Your task to perform on an android device: Search for the new Apple Watch on Best Buy Image 0: 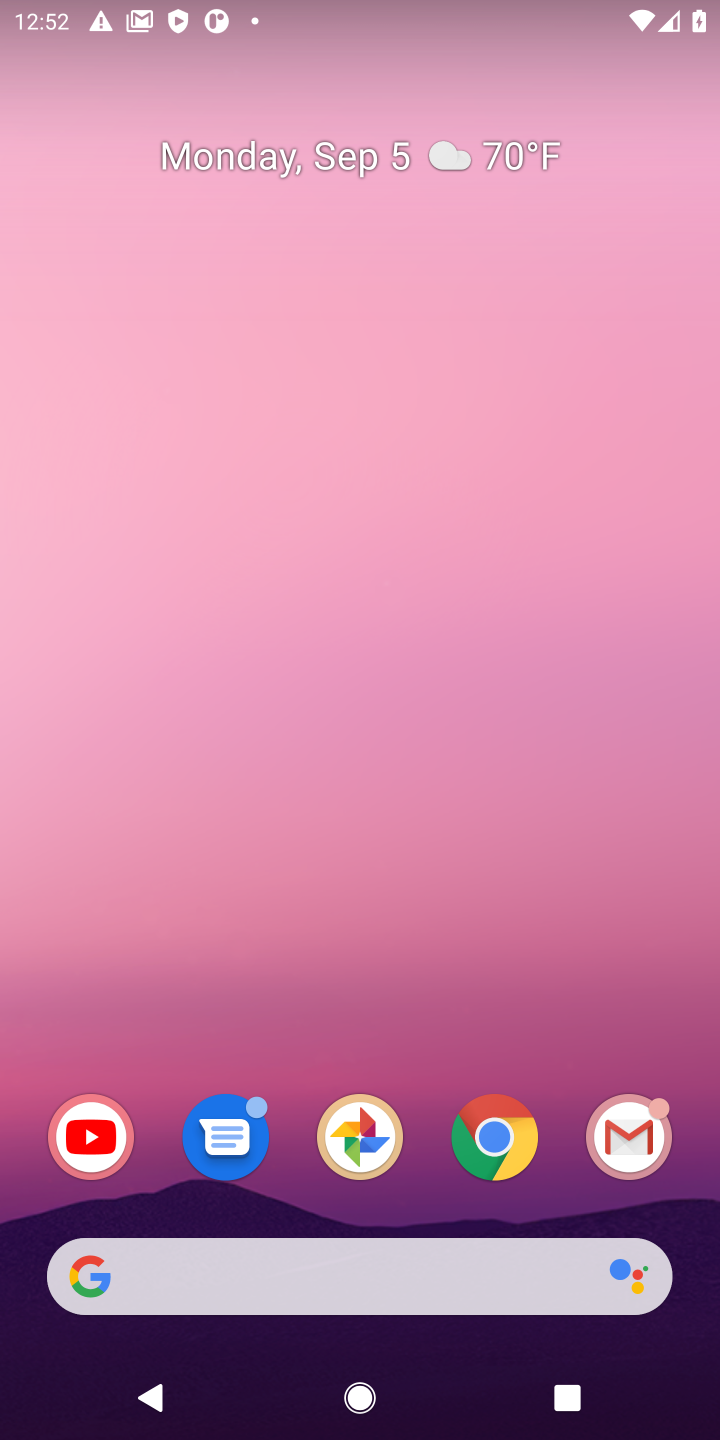
Step 0: click (468, 1164)
Your task to perform on an android device: Search for the new Apple Watch on Best Buy Image 1: 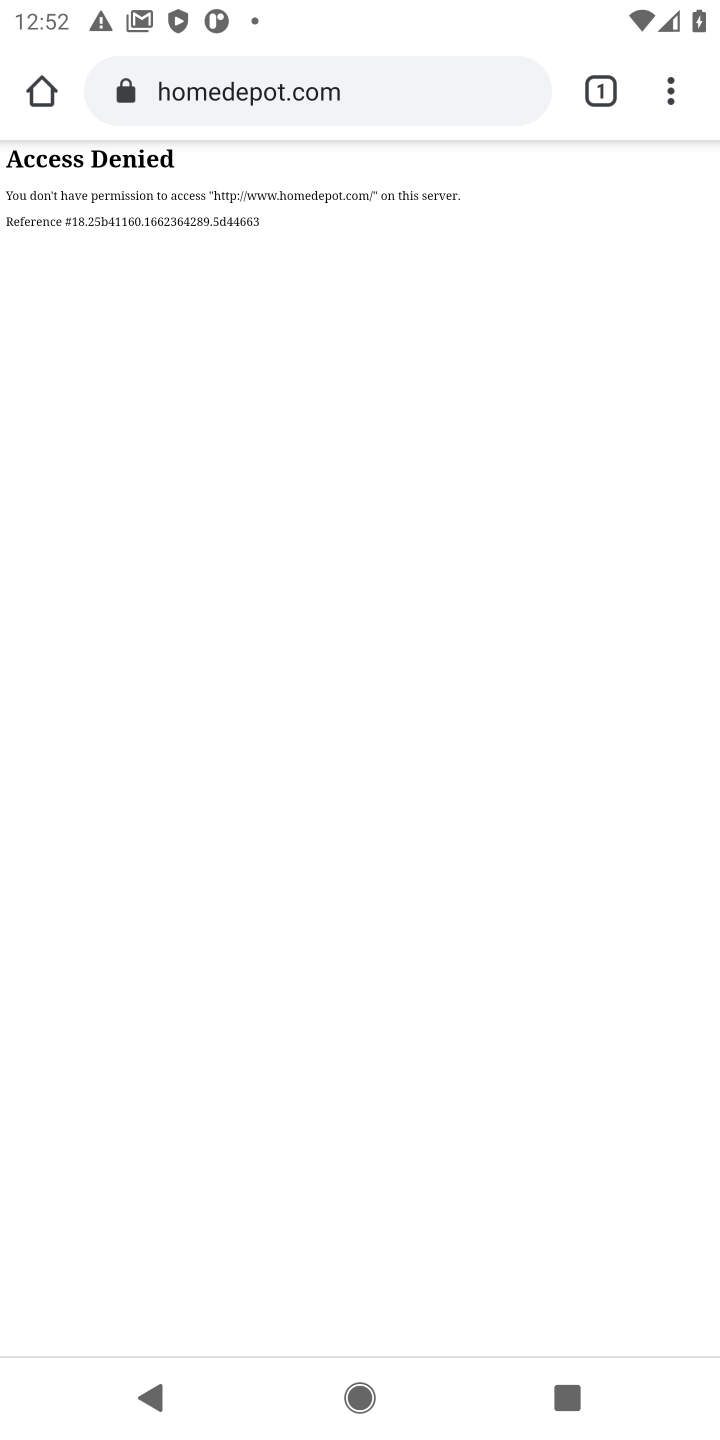
Step 1: click (311, 80)
Your task to perform on an android device: Search for the new Apple Watch on Best Buy Image 2: 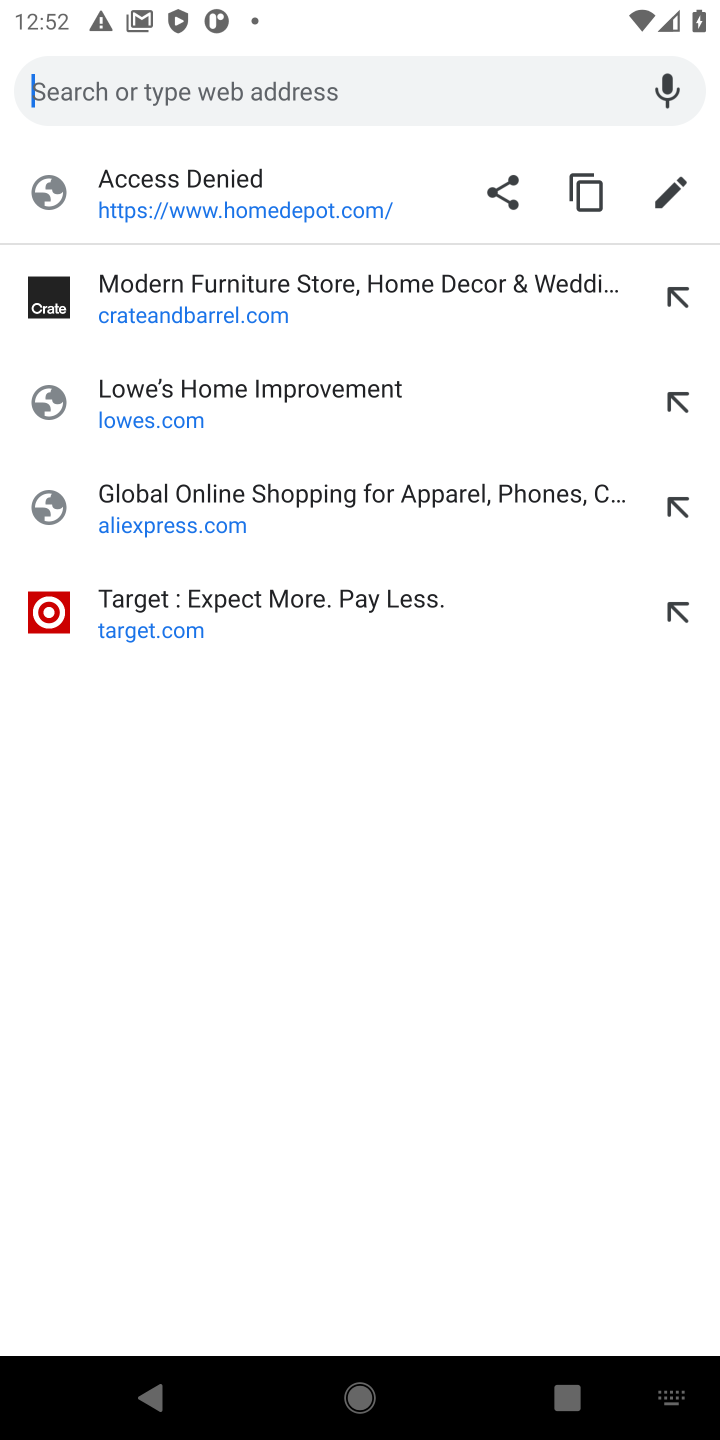
Step 2: type "best buy"
Your task to perform on an android device: Search for the new Apple Watch on Best Buy Image 3: 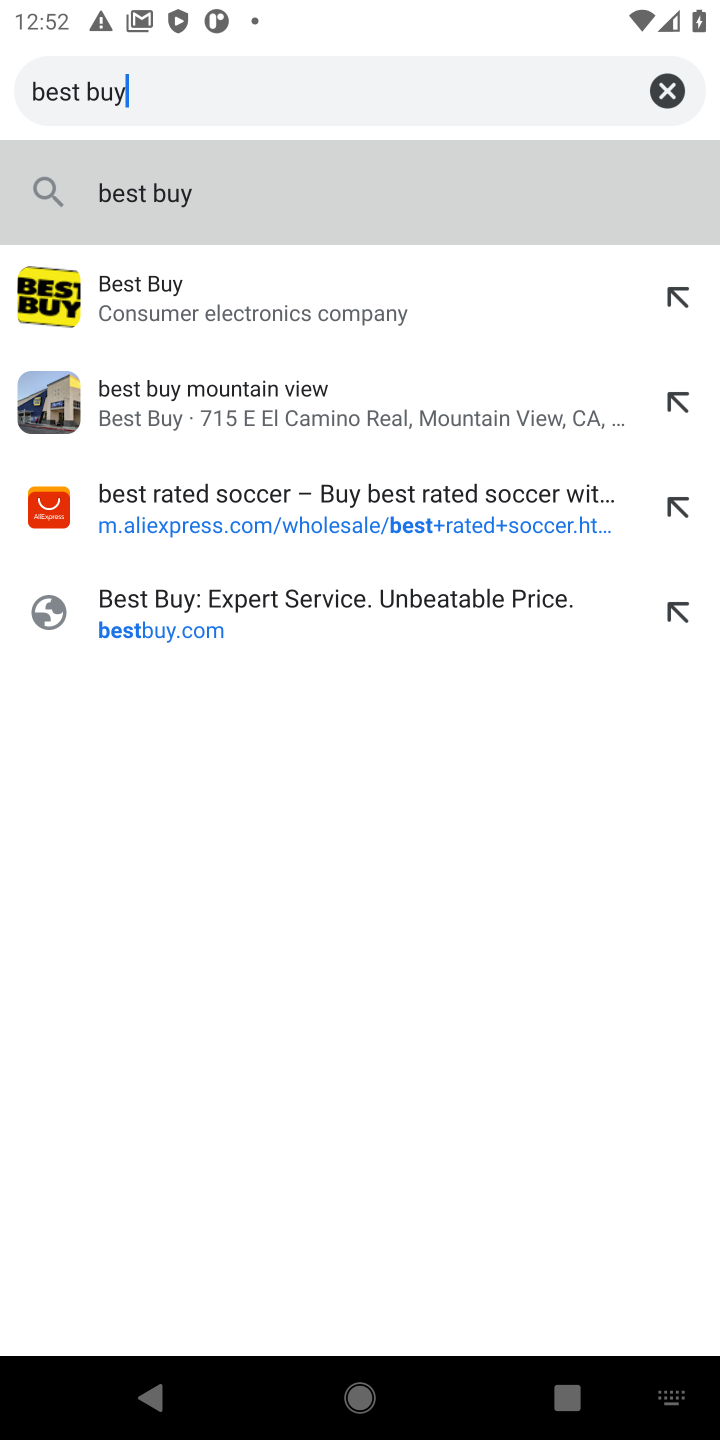
Step 3: click (377, 614)
Your task to perform on an android device: Search for the new Apple Watch on Best Buy Image 4: 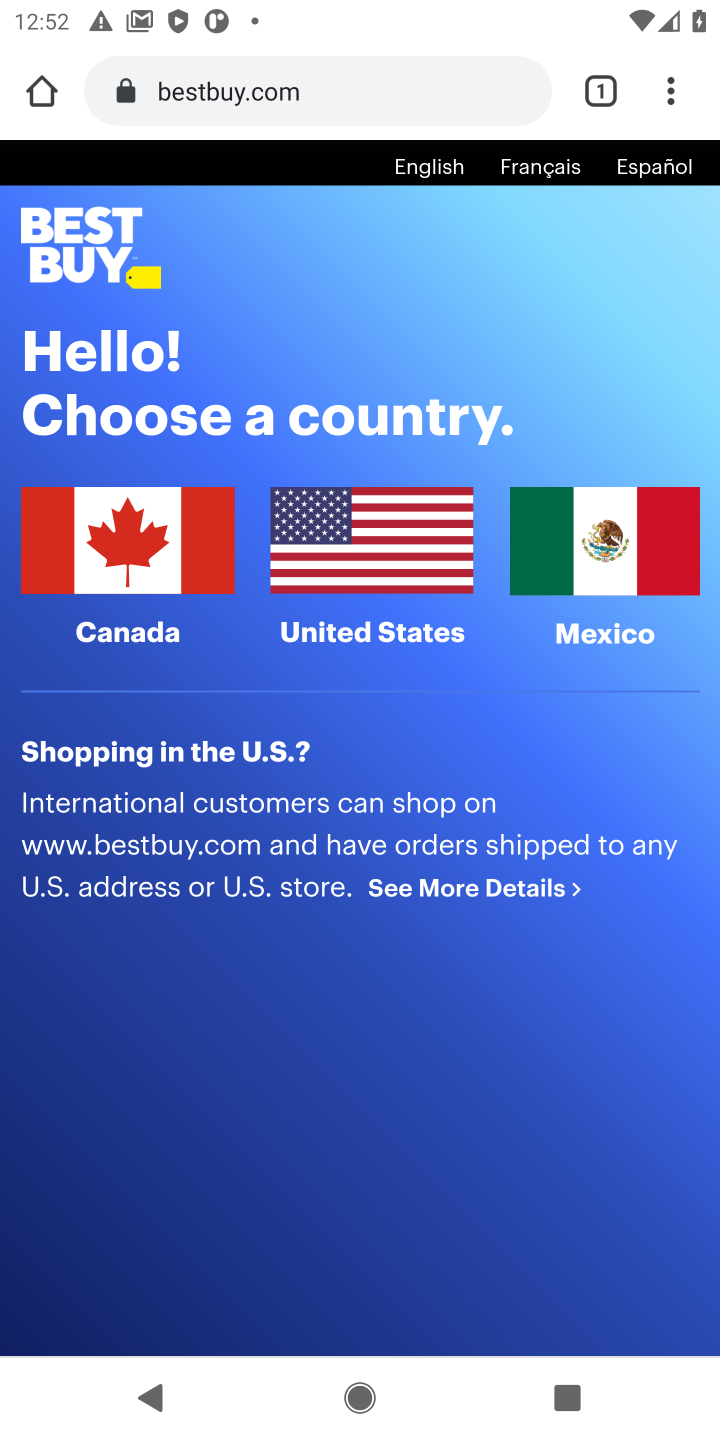
Step 4: click (319, 558)
Your task to perform on an android device: Search for the new Apple Watch on Best Buy Image 5: 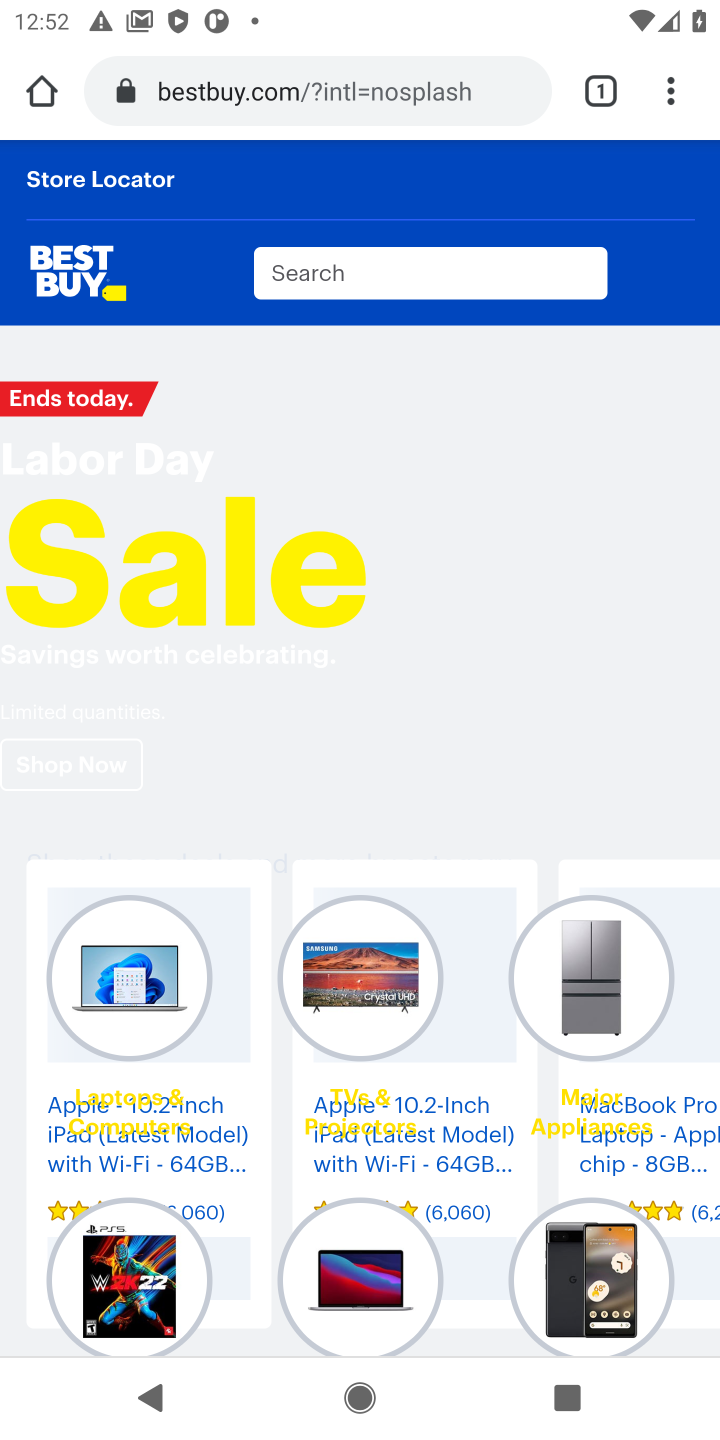
Step 5: click (436, 279)
Your task to perform on an android device: Search for the new Apple Watch on Best Buy Image 6: 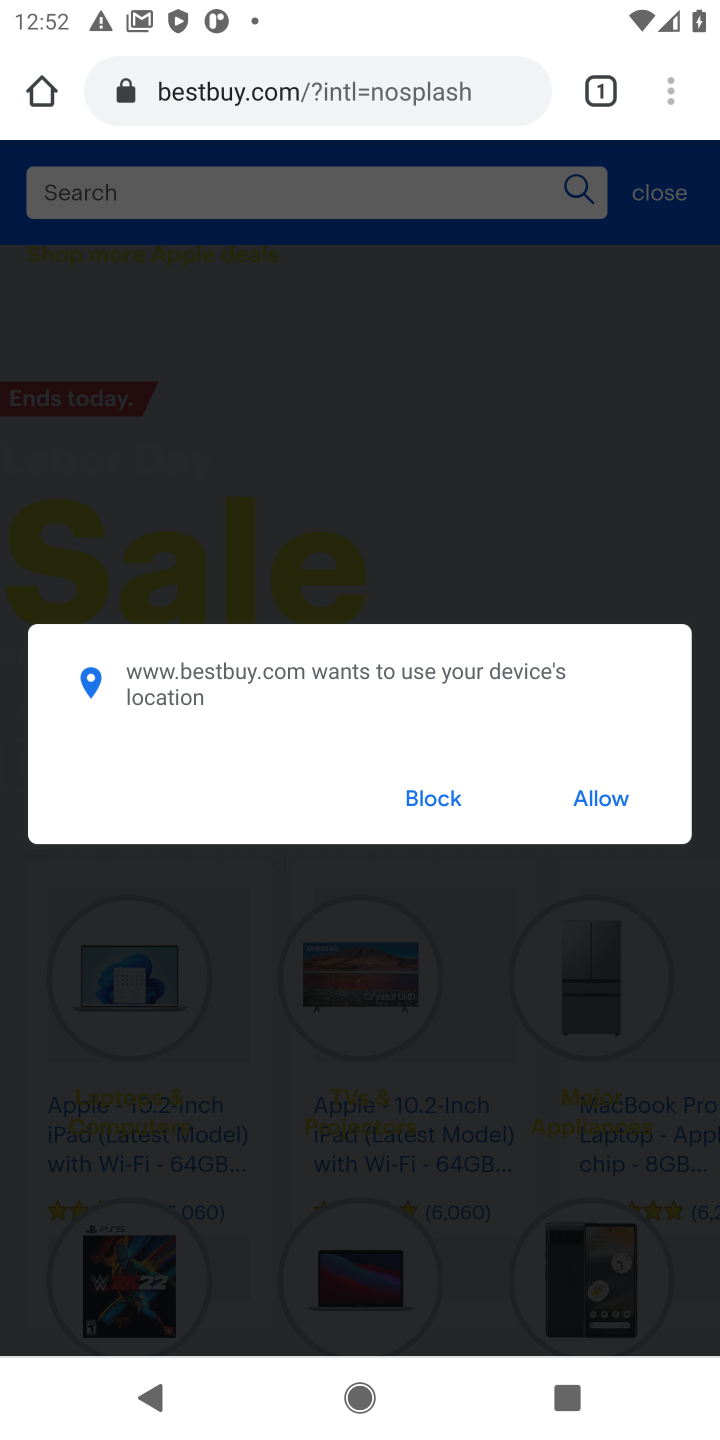
Step 6: click (616, 807)
Your task to perform on an android device: Search for the new Apple Watch on Best Buy Image 7: 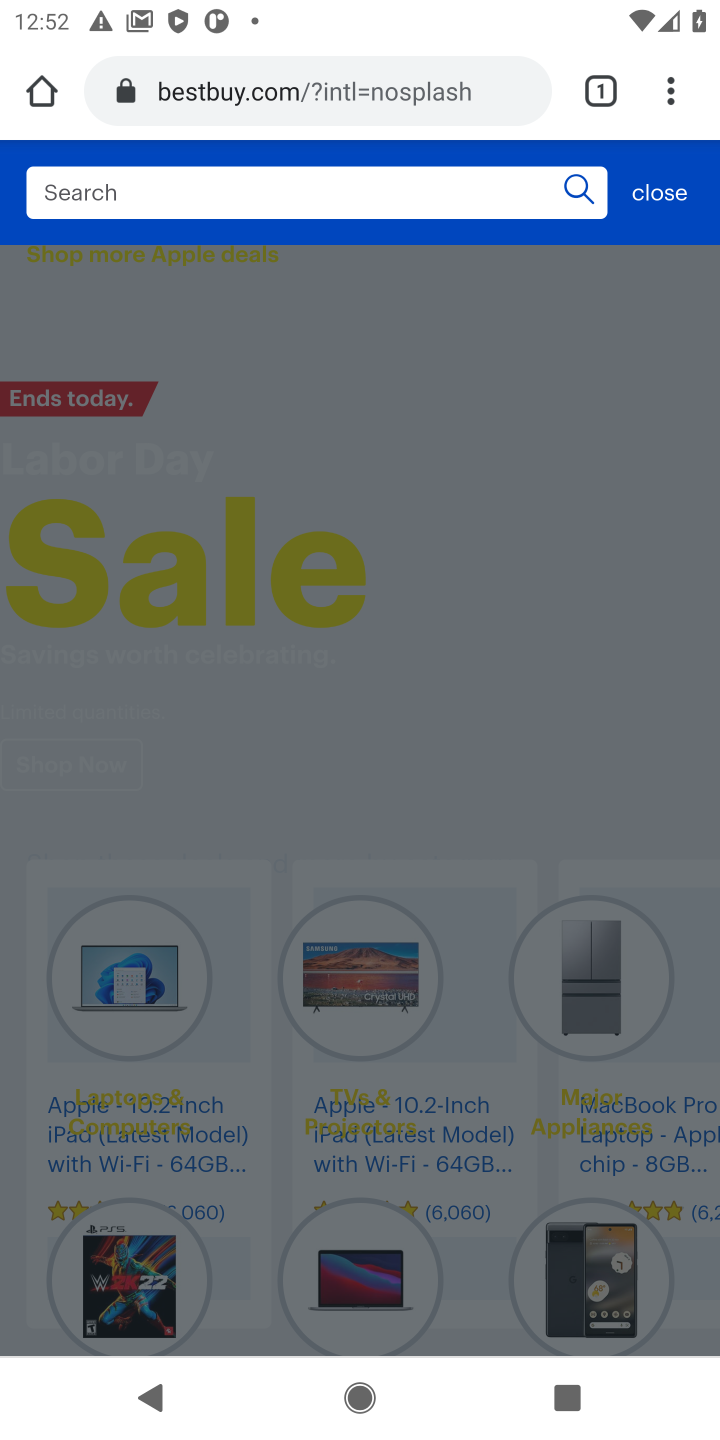
Step 7: click (250, 203)
Your task to perform on an android device: Search for the new Apple Watch on Best Buy Image 8: 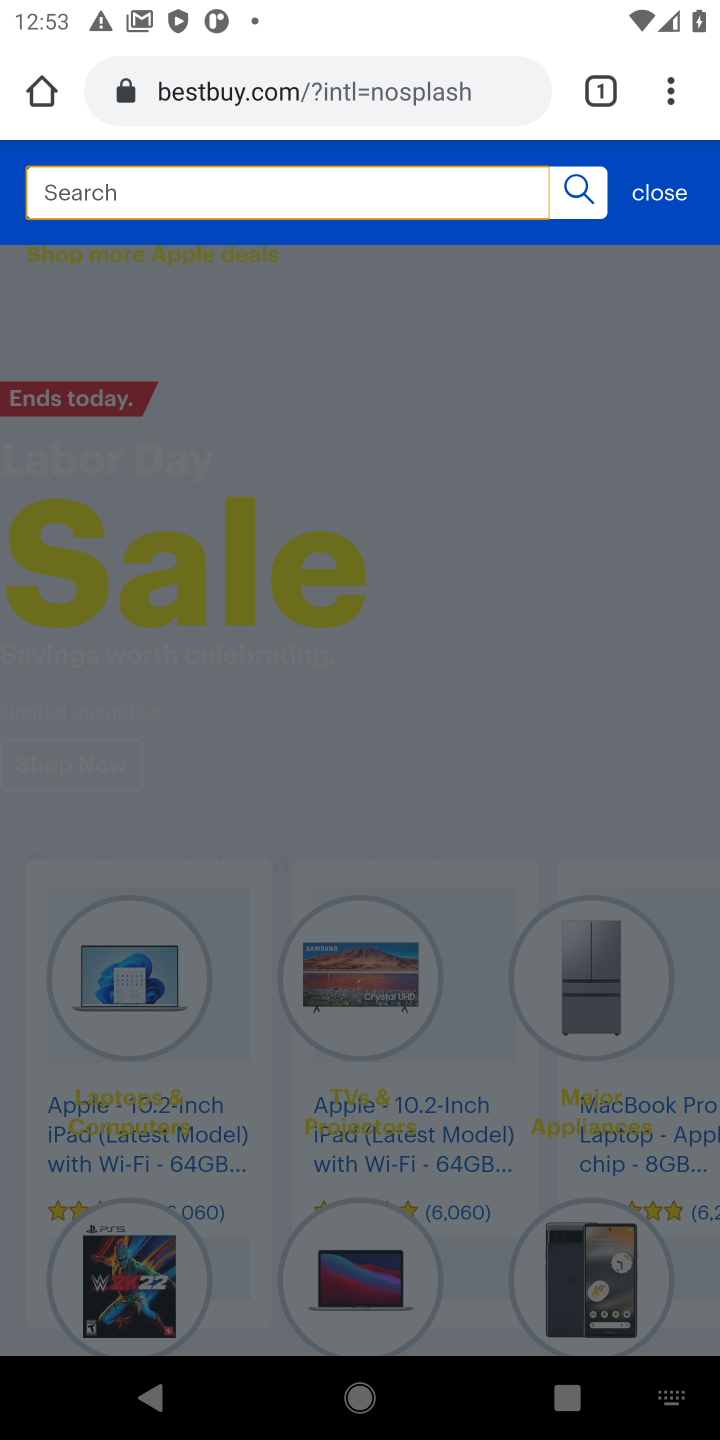
Step 8: type "apple watch\"
Your task to perform on an android device: Search for the new Apple Watch on Best Buy Image 9: 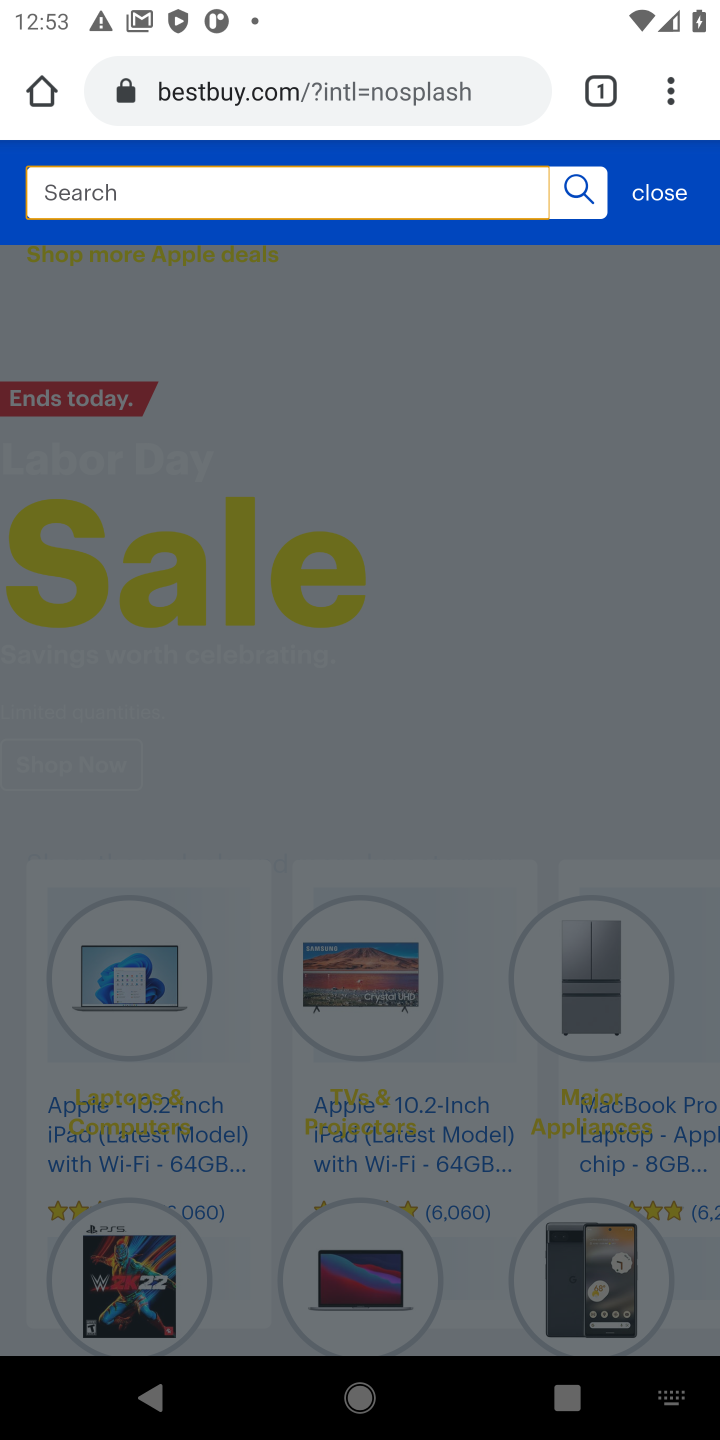
Step 9: type "apple watch"
Your task to perform on an android device: Search for the new Apple Watch on Best Buy Image 10: 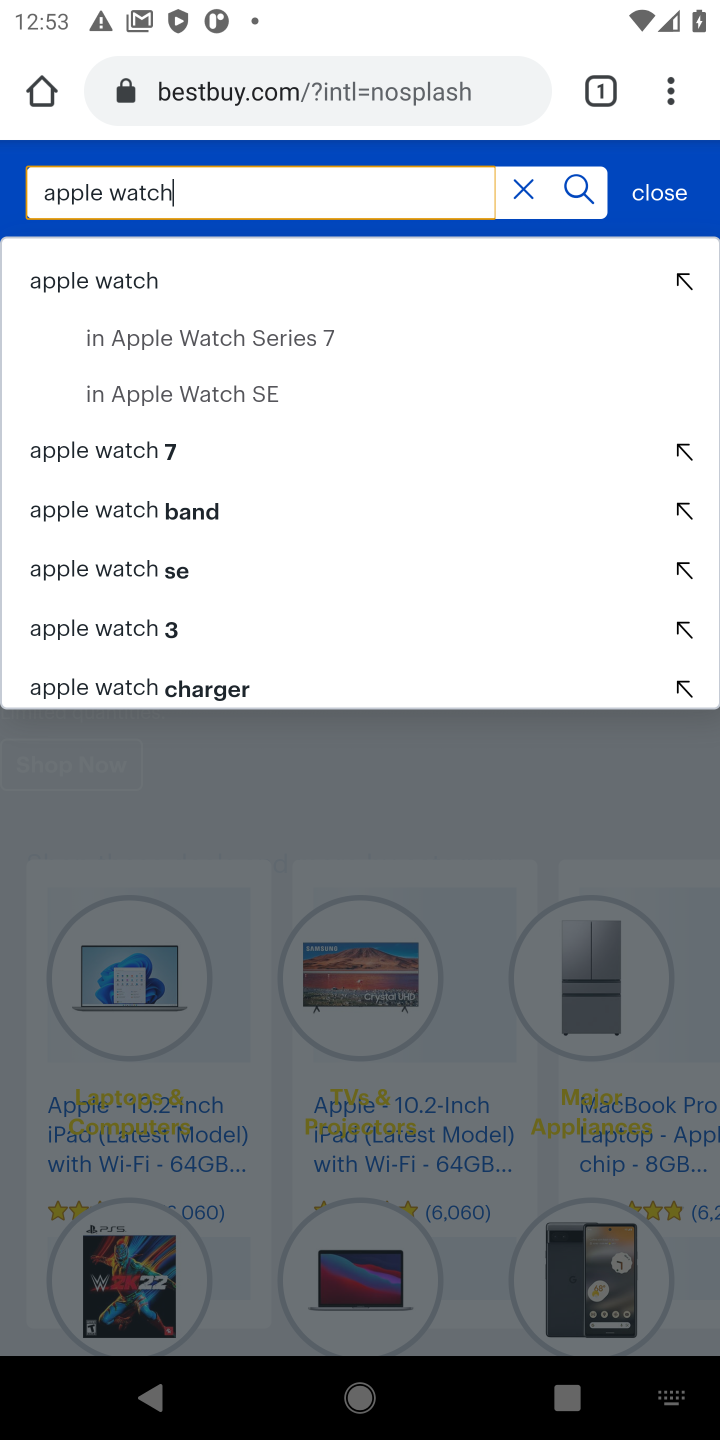
Step 10: click (215, 285)
Your task to perform on an android device: Search for the new Apple Watch on Best Buy Image 11: 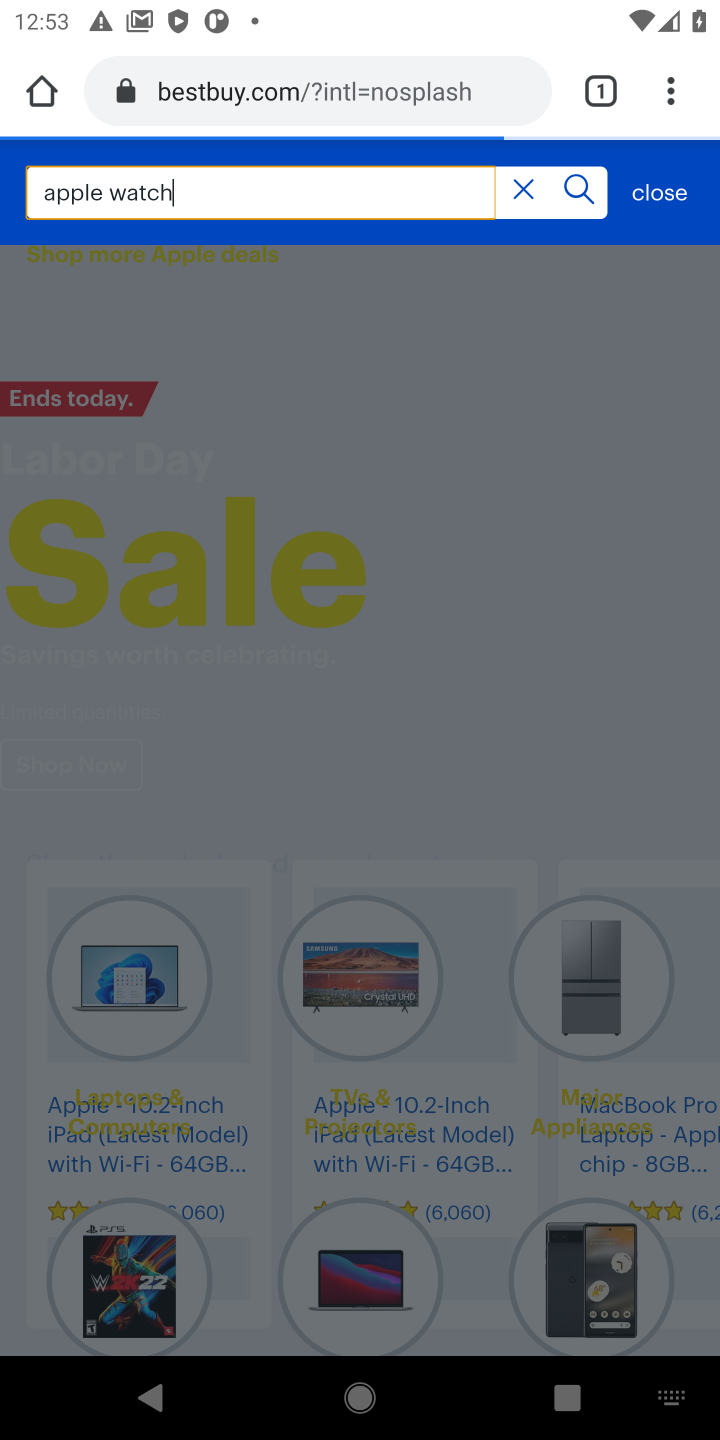
Step 11: task complete